Your task to perform on an android device: Open the web browser Image 0: 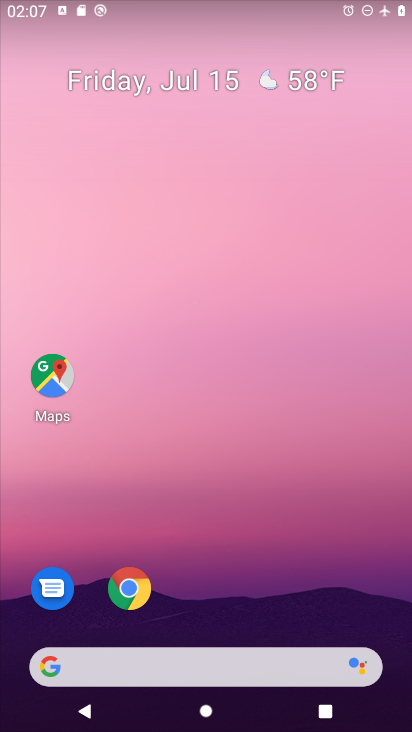
Step 0: click (123, 583)
Your task to perform on an android device: Open the web browser Image 1: 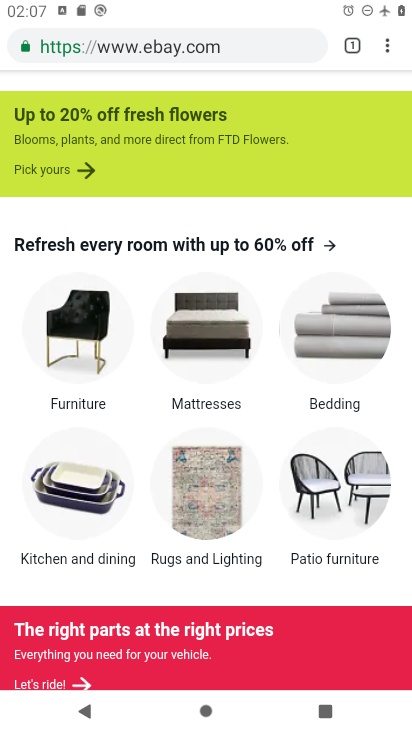
Step 1: task complete